Your task to perform on an android device: set default search engine in the chrome app Image 0: 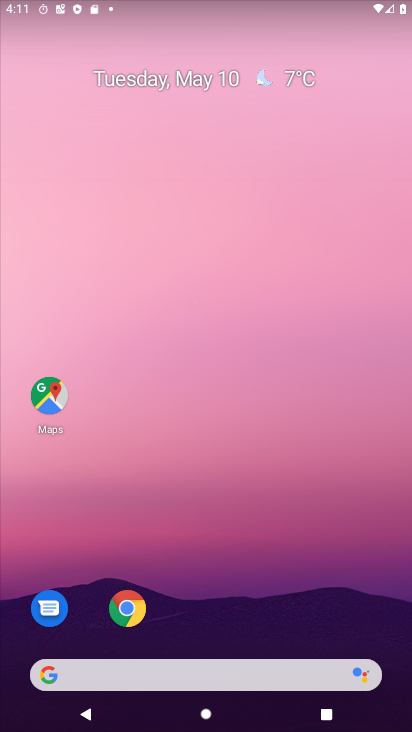
Step 0: click (127, 609)
Your task to perform on an android device: set default search engine in the chrome app Image 1: 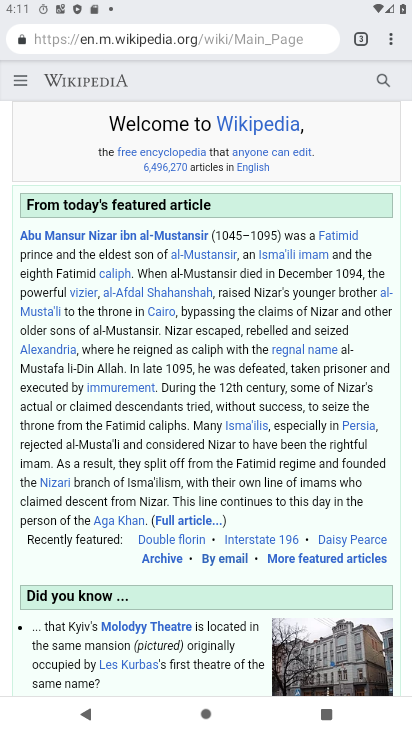
Step 1: drag from (395, 35) to (275, 477)
Your task to perform on an android device: set default search engine in the chrome app Image 2: 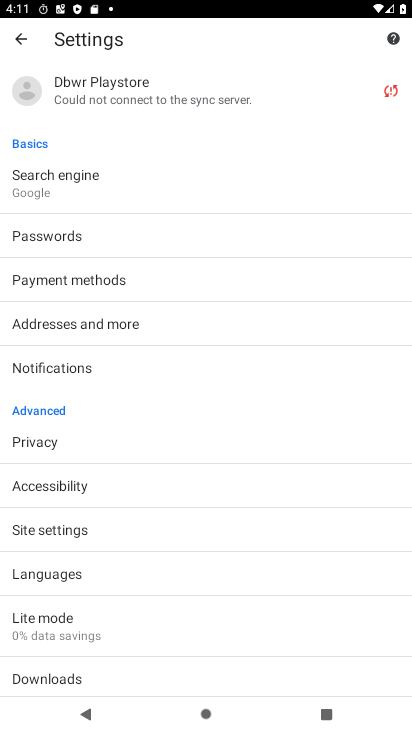
Step 2: click (37, 194)
Your task to perform on an android device: set default search engine in the chrome app Image 3: 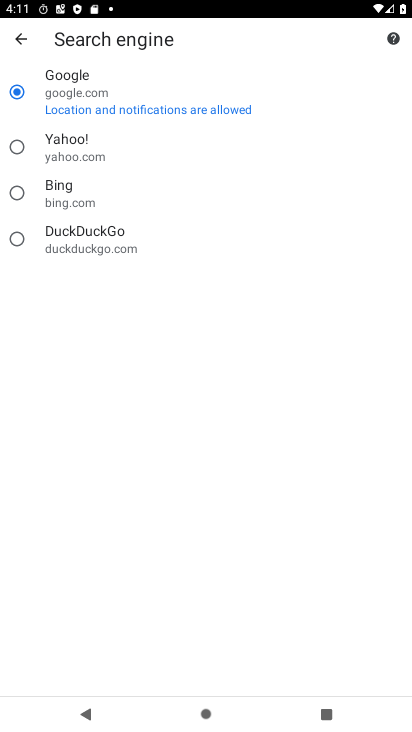
Step 3: click (18, 153)
Your task to perform on an android device: set default search engine in the chrome app Image 4: 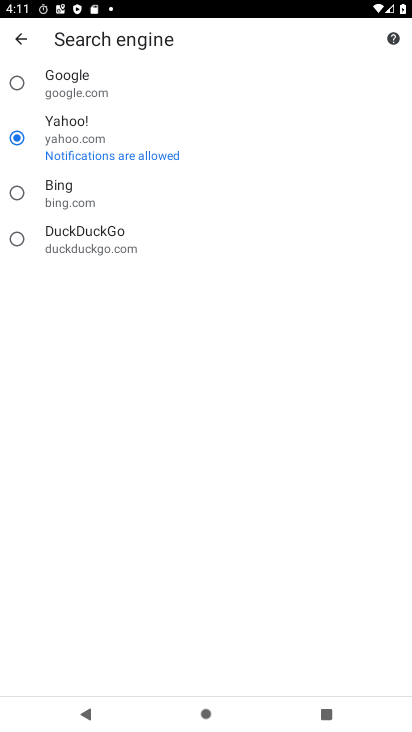
Step 4: task complete